Your task to perform on an android device: add a contact in the contacts app Image 0: 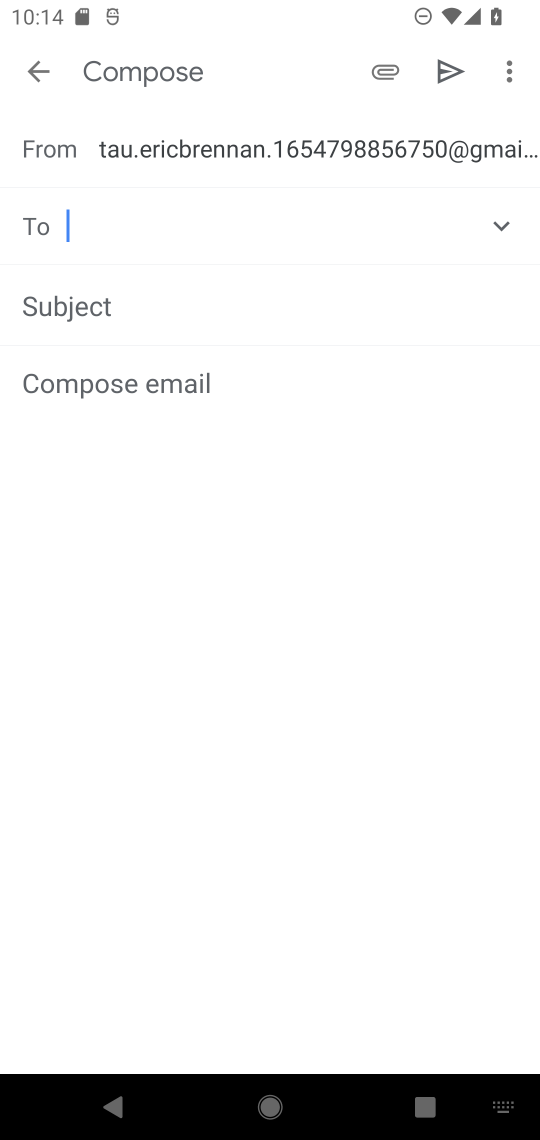
Step 0: press home button
Your task to perform on an android device: add a contact in the contacts app Image 1: 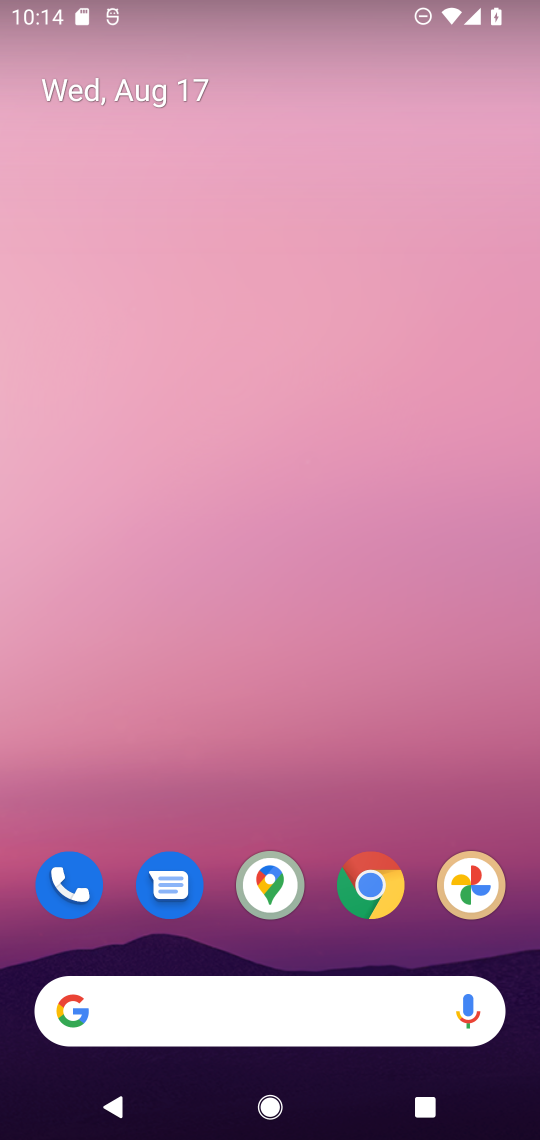
Step 1: drag from (421, 937) to (404, 217)
Your task to perform on an android device: add a contact in the contacts app Image 2: 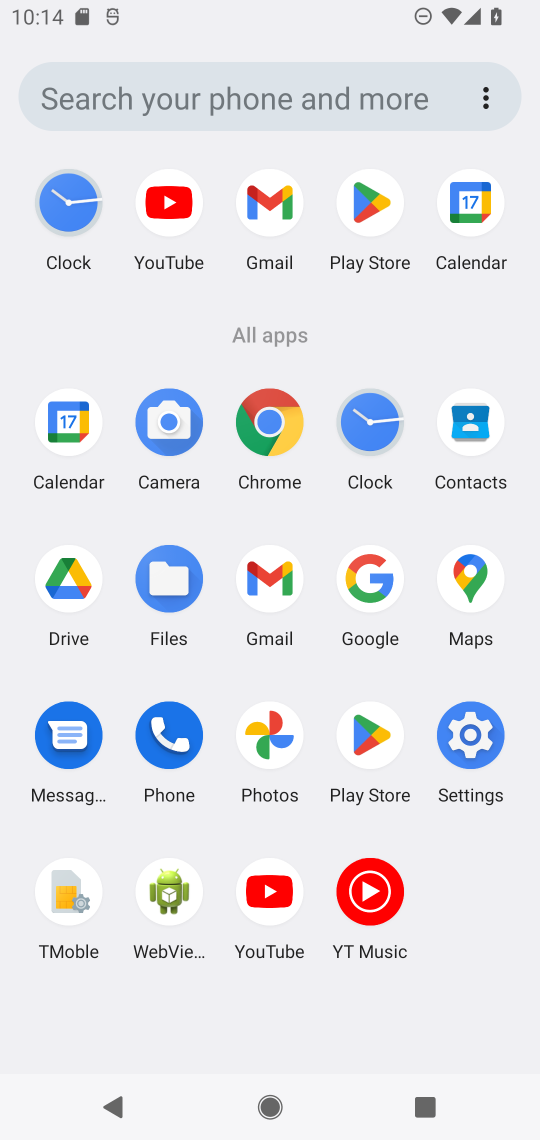
Step 2: click (473, 420)
Your task to perform on an android device: add a contact in the contacts app Image 3: 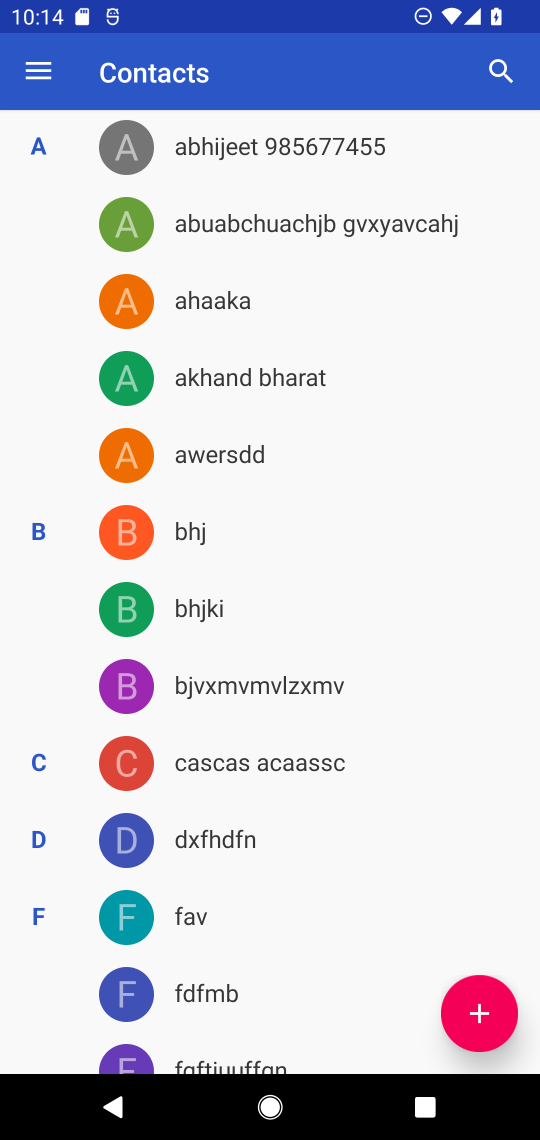
Step 3: click (476, 1013)
Your task to perform on an android device: add a contact in the contacts app Image 4: 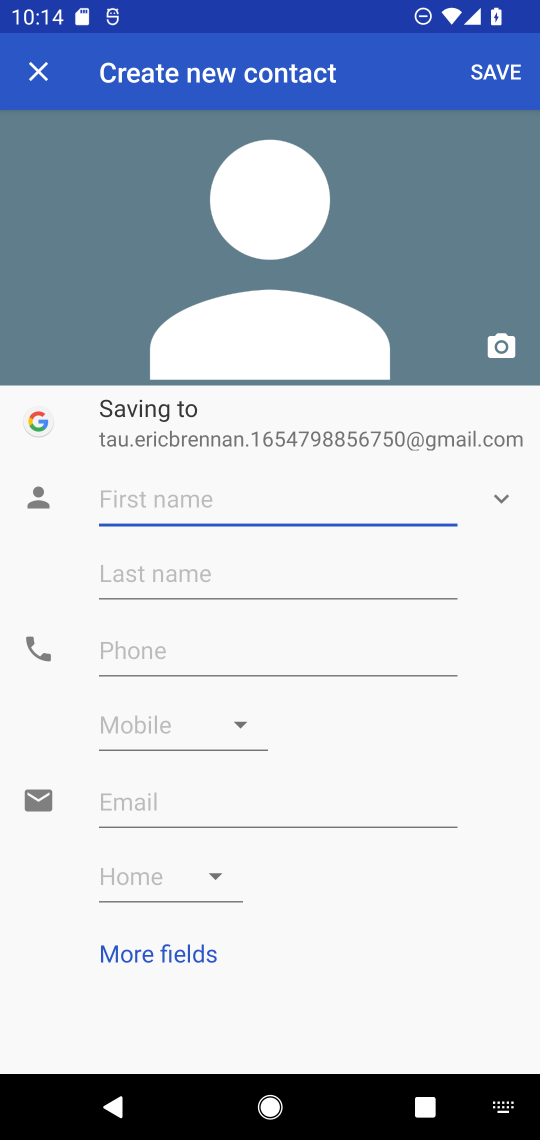
Step 4: type "gffbbcfs"
Your task to perform on an android device: add a contact in the contacts app Image 5: 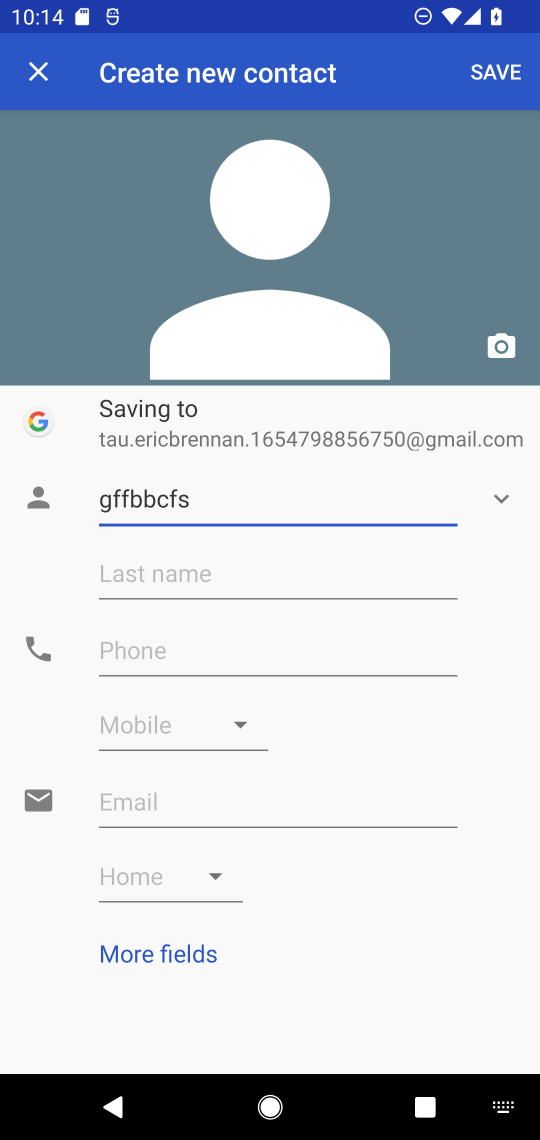
Step 5: click (187, 653)
Your task to perform on an android device: add a contact in the contacts app Image 6: 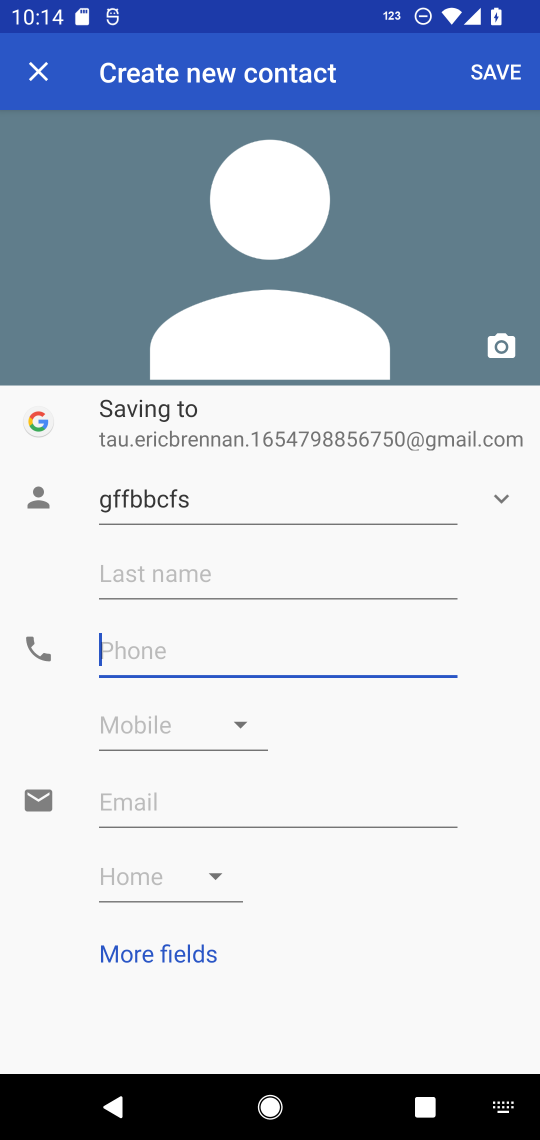
Step 6: type "6787996543"
Your task to perform on an android device: add a contact in the contacts app Image 7: 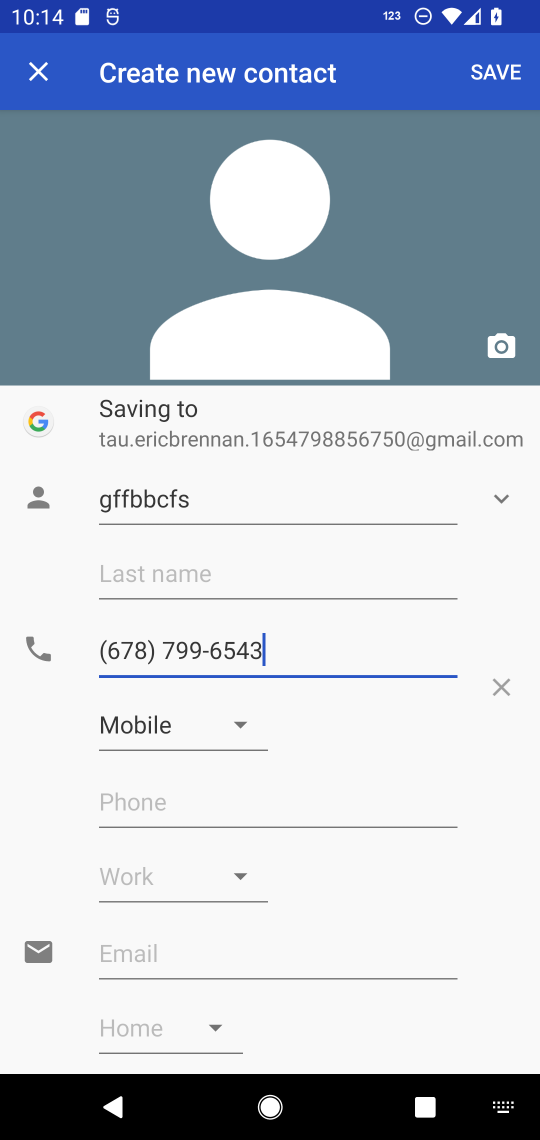
Step 7: click (491, 72)
Your task to perform on an android device: add a contact in the contacts app Image 8: 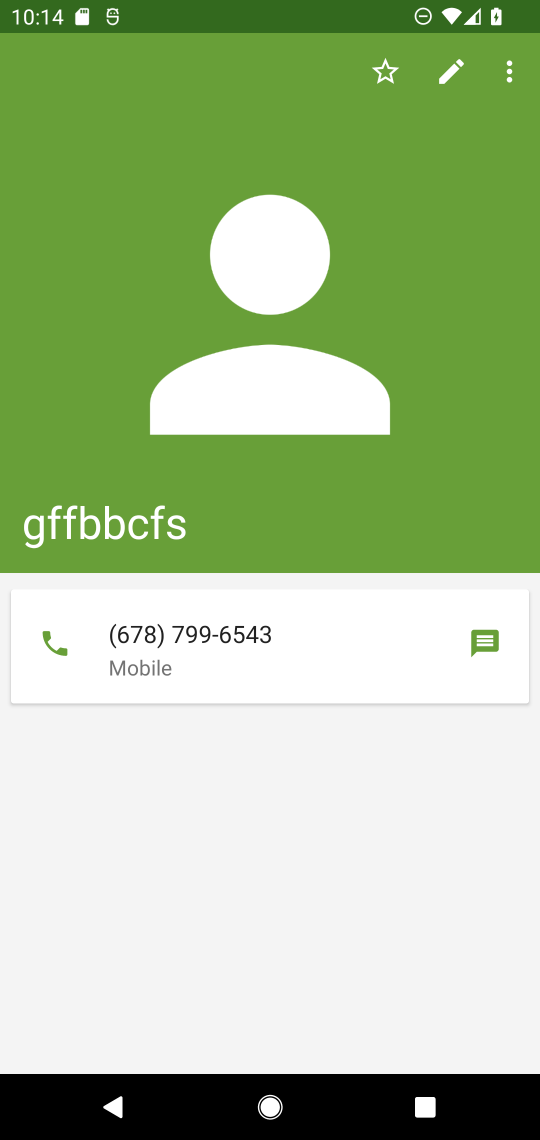
Step 8: task complete